Your task to perform on an android device: turn off airplane mode Image 0: 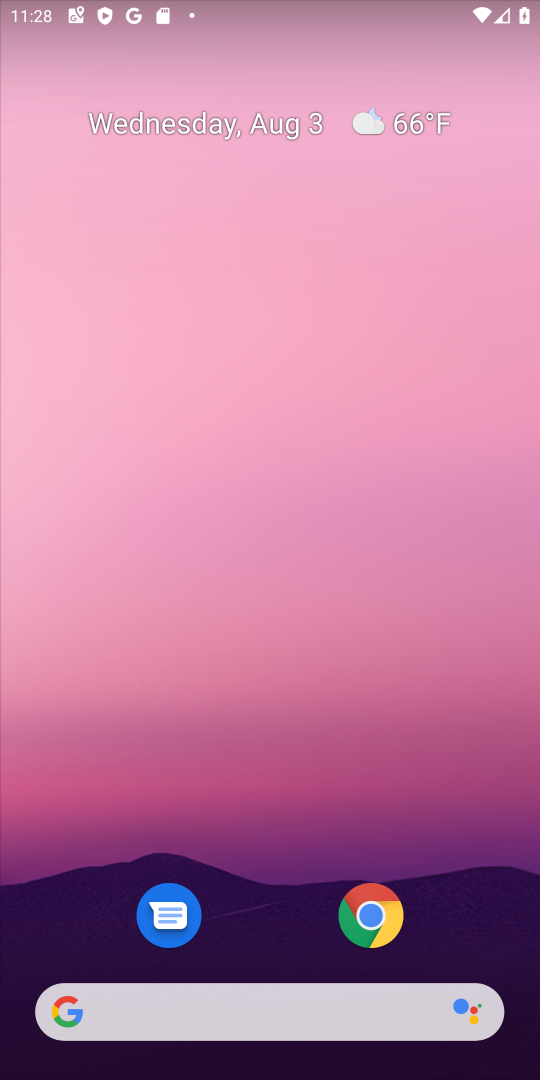
Step 0: press home button
Your task to perform on an android device: turn off airplane mode Image 1: 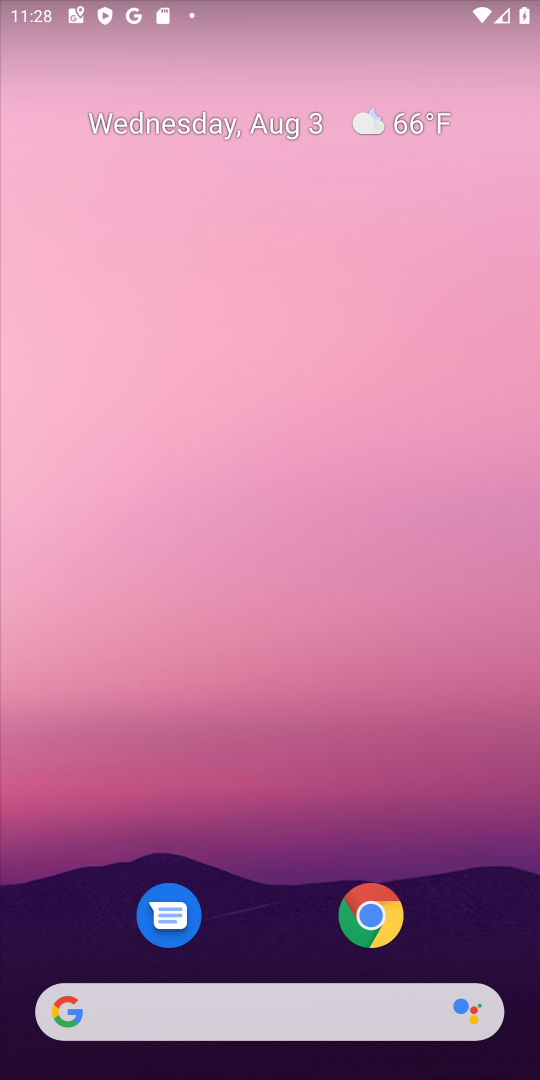
Step 1: drag from (350, 21) to (397, 987)
Your task to perform on an android device: turn off airplane mode Image 2: 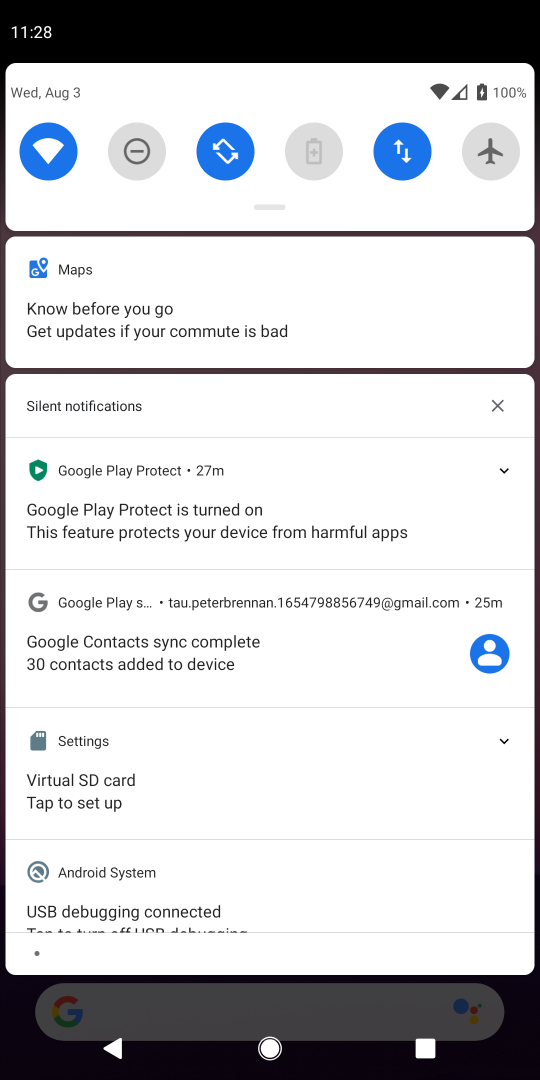
Step 2: click (483, 167)
Your task to perform on an android device: turn off airplane mode Image 3: 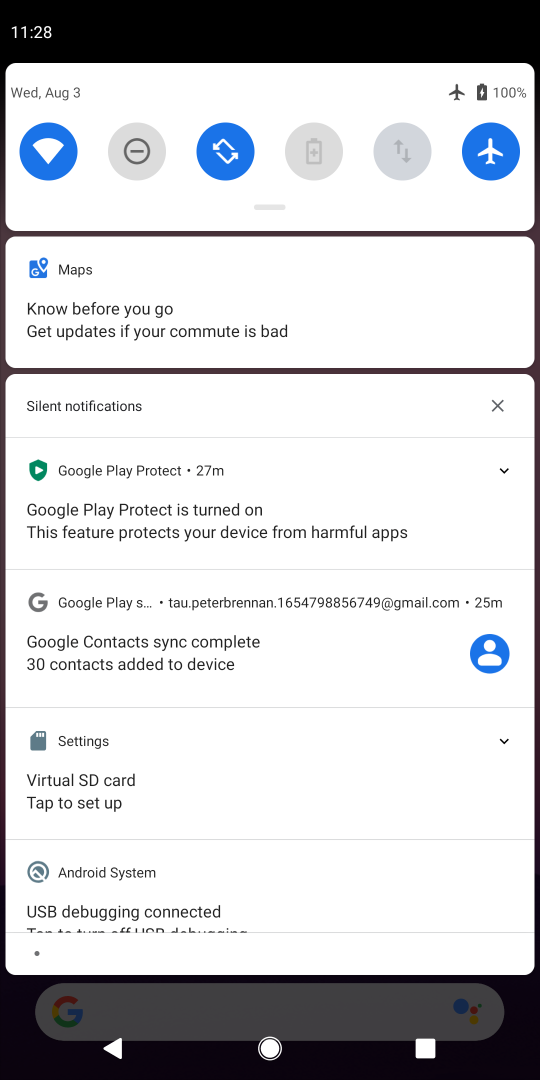
Step 3: task complete